Your task to perform on an android device: Open Chrome and go to settings Image 0: 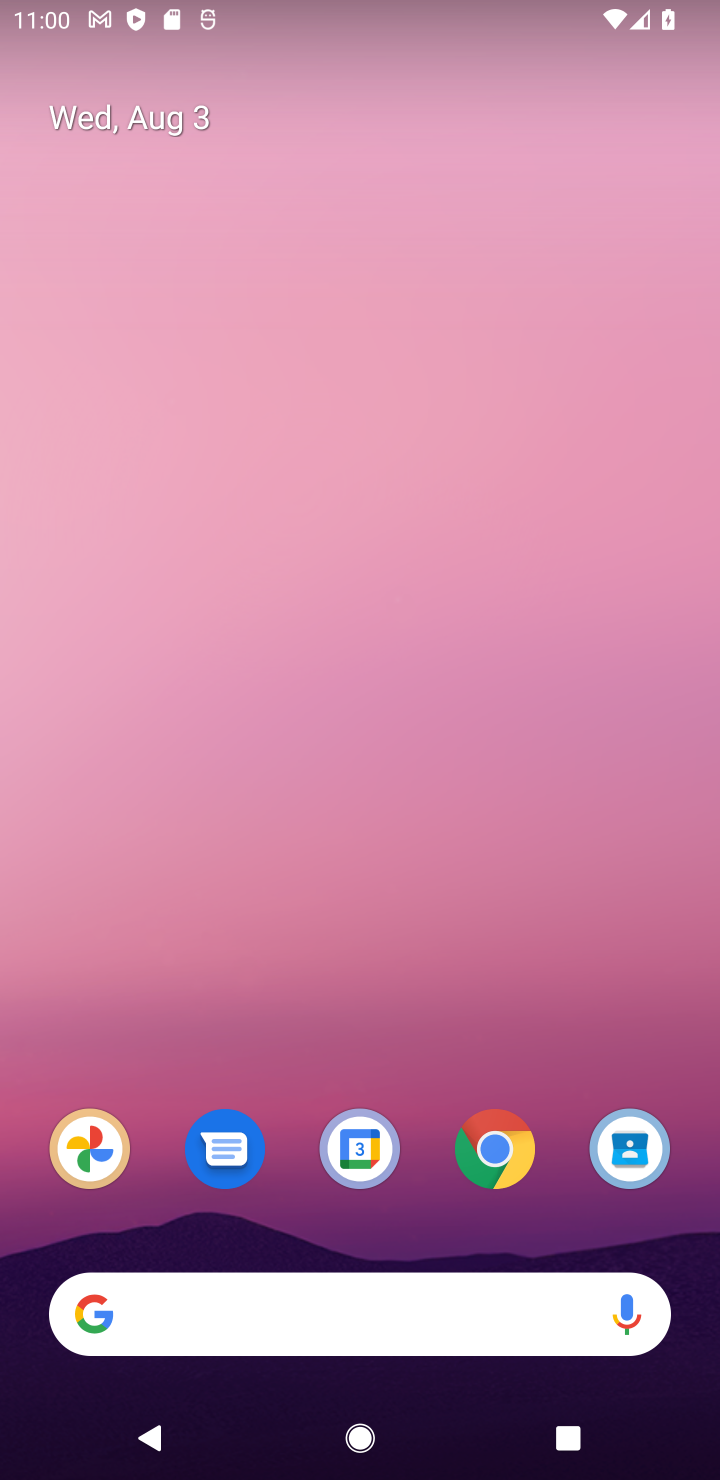
Step 0: click (487, 1169)
Your task to perform on an android device: Open Chrome and go to settings Image 1: 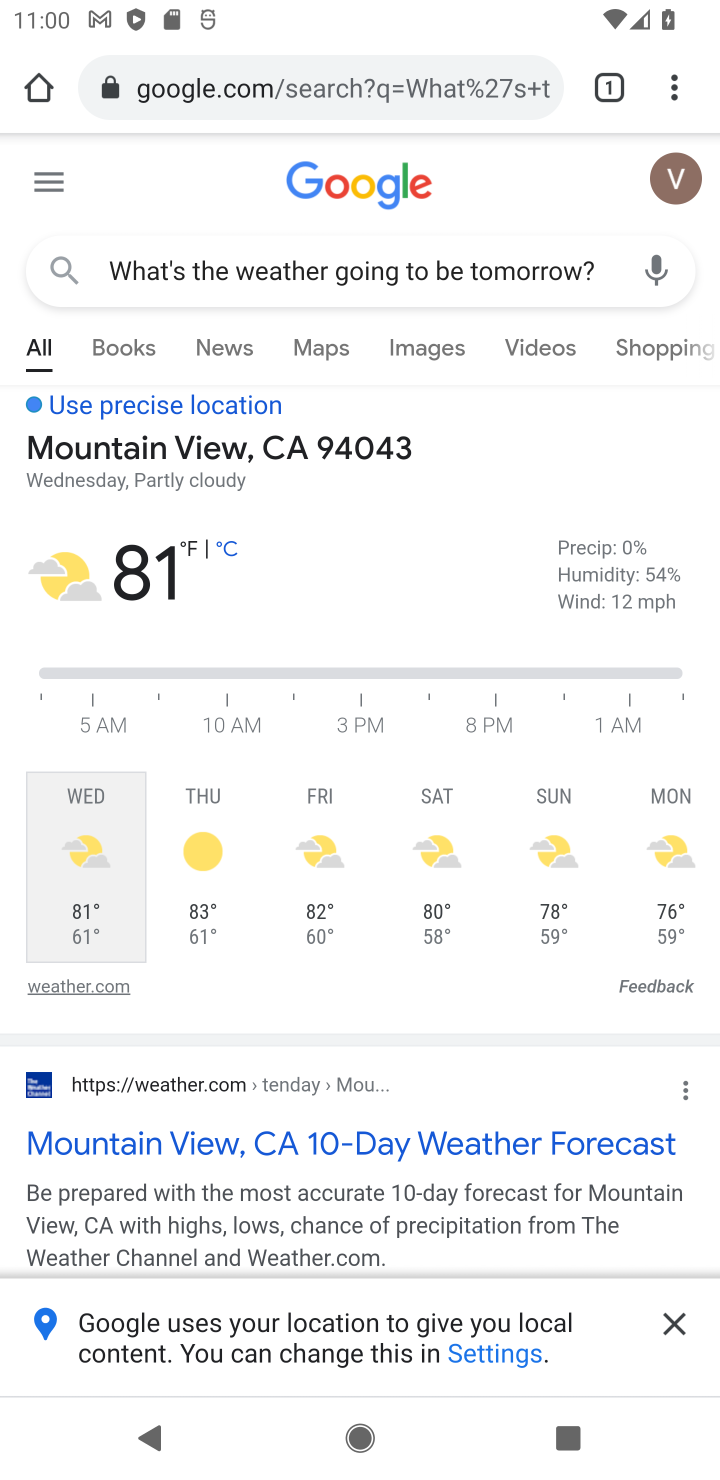
Step 1: click (680, 88)
Your task to perform on an android device: Open Chrome and go to settings Image 2: 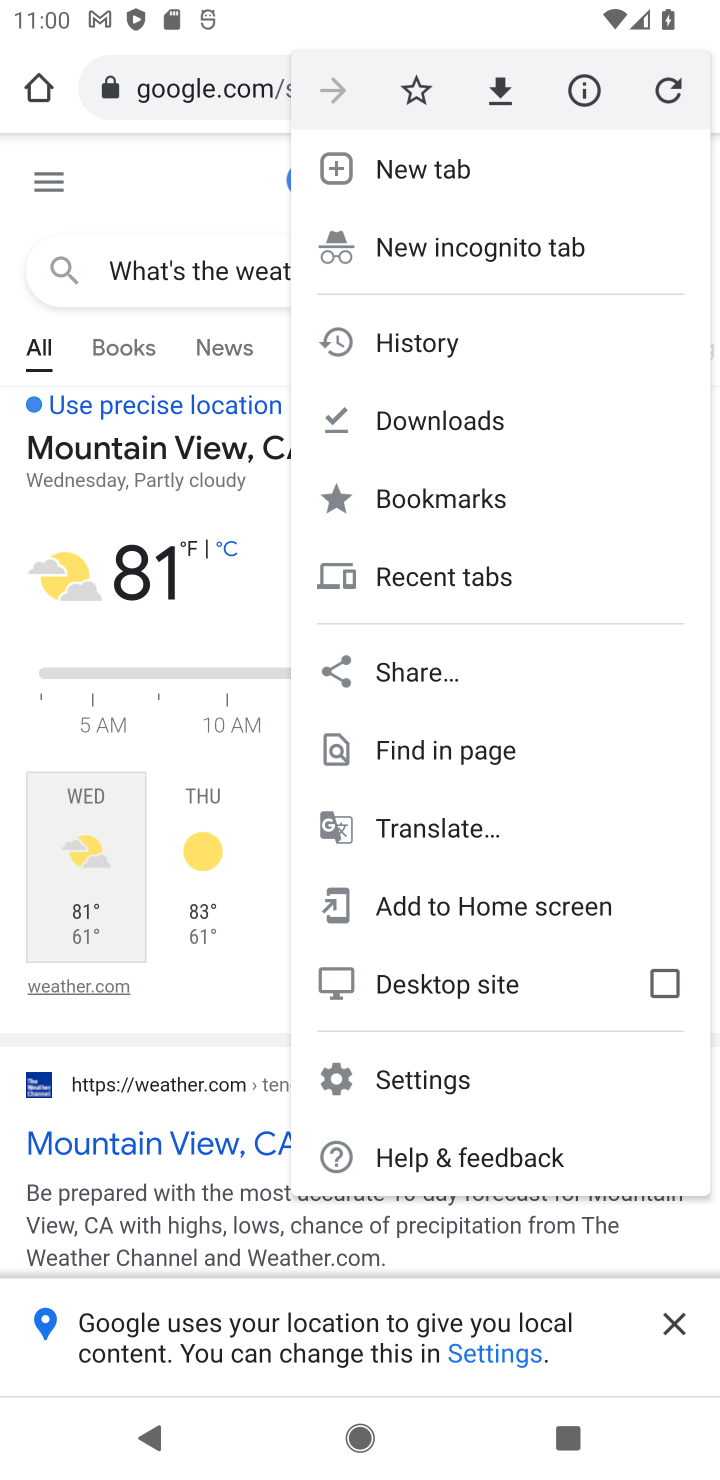
Step 2: click (499, 1085)
Your task to perform on an android device: Open Chrome and go to settings Image 3: 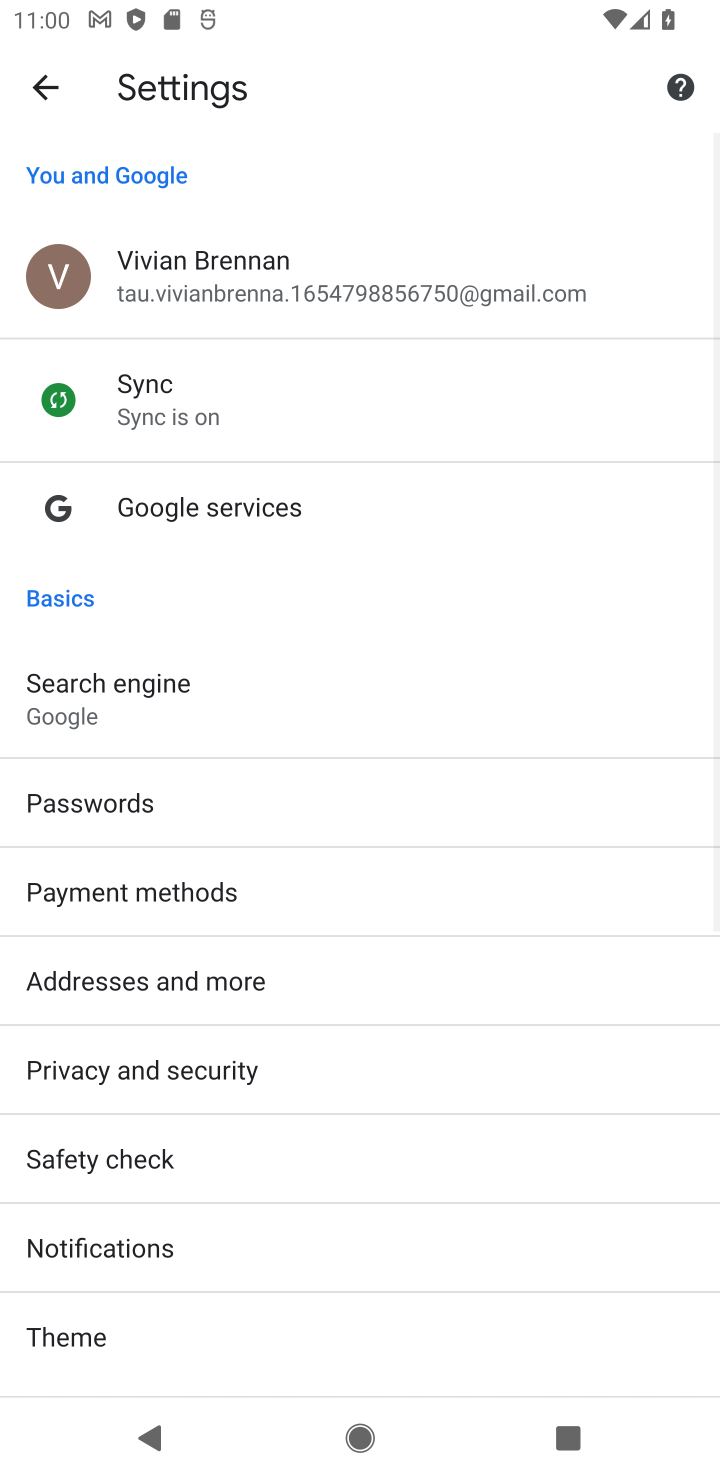
Step 3: task complete